Your task to perform on an android device: install app "Adobe Express: Graphic Design" Image 0: 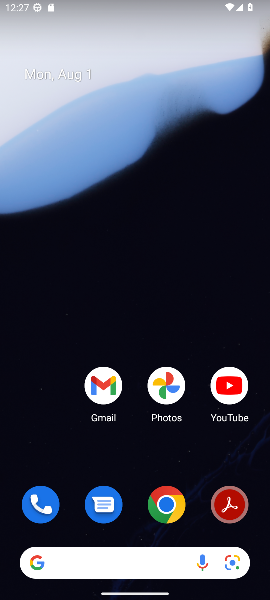
Step 0: drag from (100, 546) to (76, 255)
Your task to perform on an android device: install app "Adobe Express: Graphic Design" Image 1: 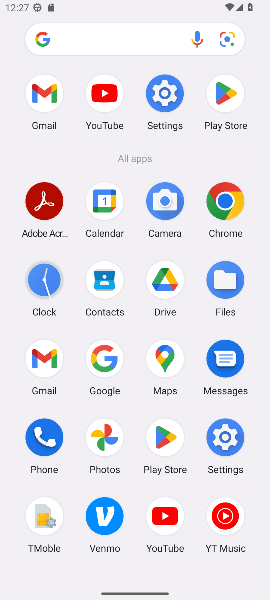
Step 1: click (158, 443)
Your task to perform on an android device: install app "Adobe Express: Graphic Design" Image 2: 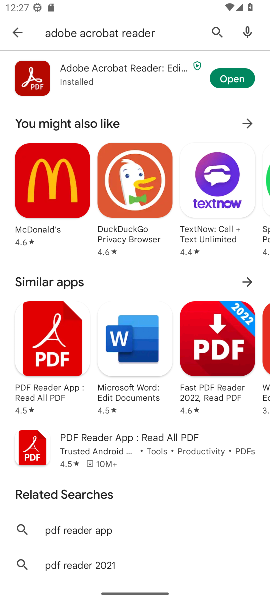
Step 2: task complete